Your task to perform on an android device: turn notification dots on Image 0: 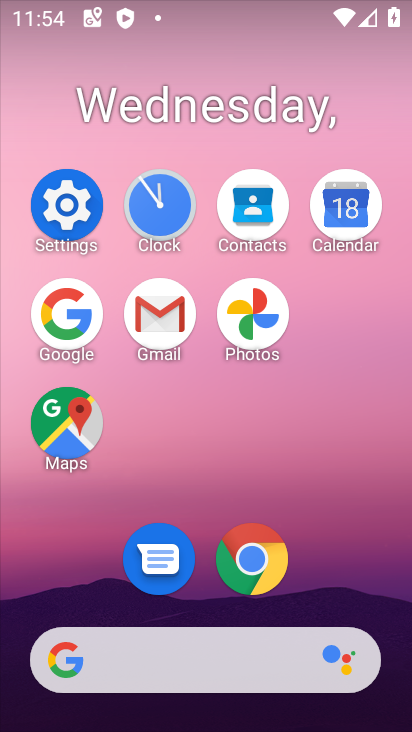
Step 0: click (91, 217)
Your task to perform on an android device: turn notification dots on Image 1: 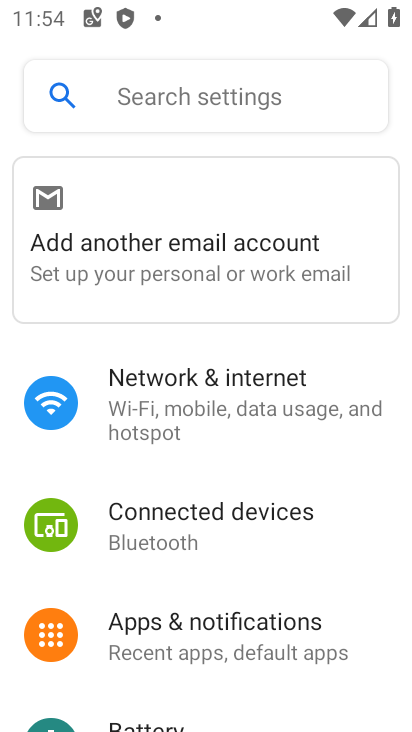
Step 1: click (246, 613)
Your task to perform on an android device: turn notification dots on Image 2: 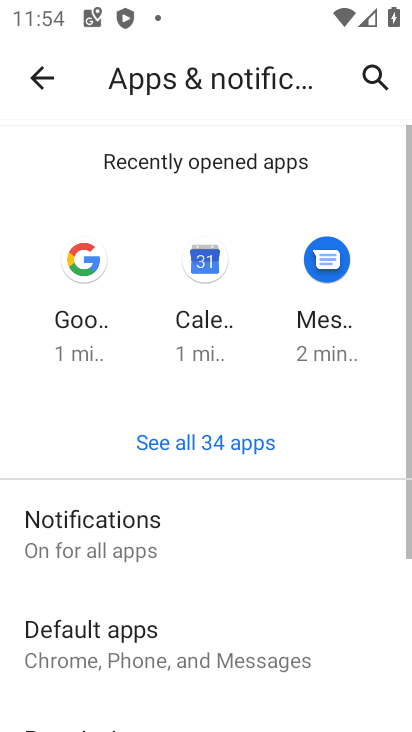
Step 2: click (203, 558)
Your task to perform on an android device: turn notification dots on Image 3: 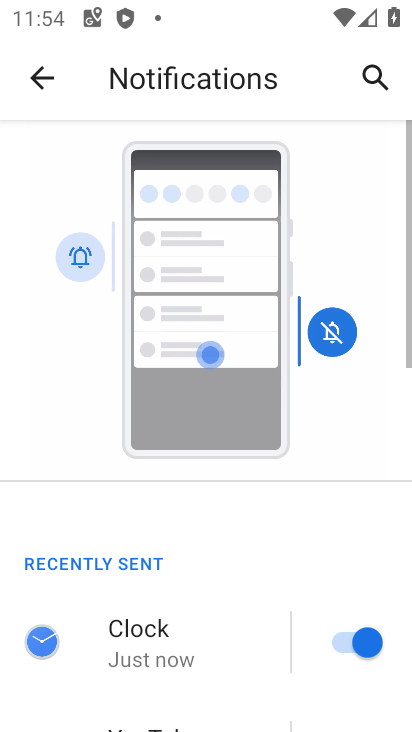
Step 3: drag from (203, 558) to (194, 220)
Your task to perform on an android device: turn notification dots on Image 4: 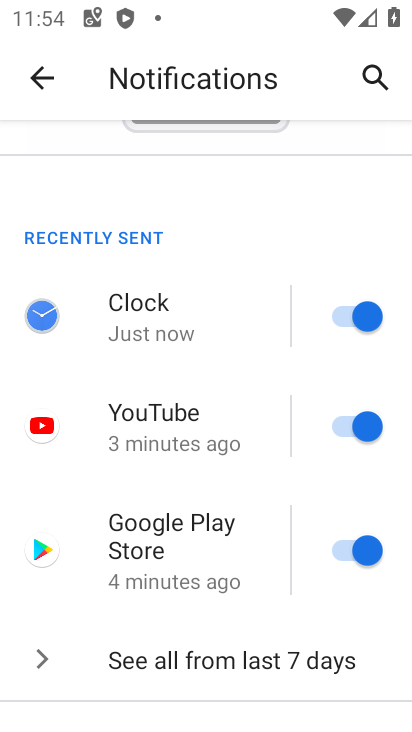
Step 4: drag from (237, 621) to (229, 252)
Your task to perform on an android device: turn notification dots on Image 5: 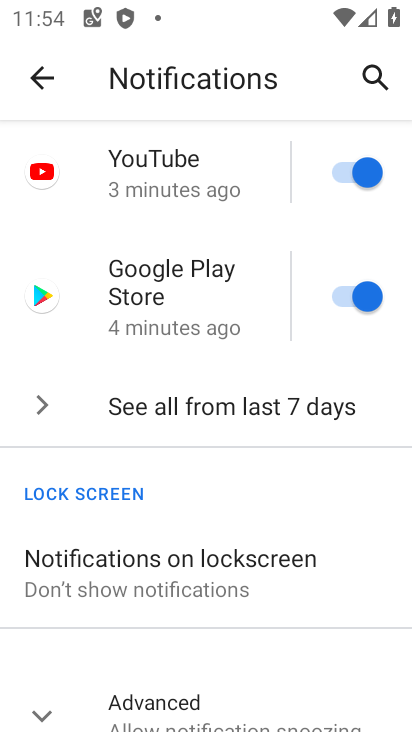
Step 5: drag from (319, 635) to (280, 309)
Your task to perform on an android device: turn notification dots on Image 6: 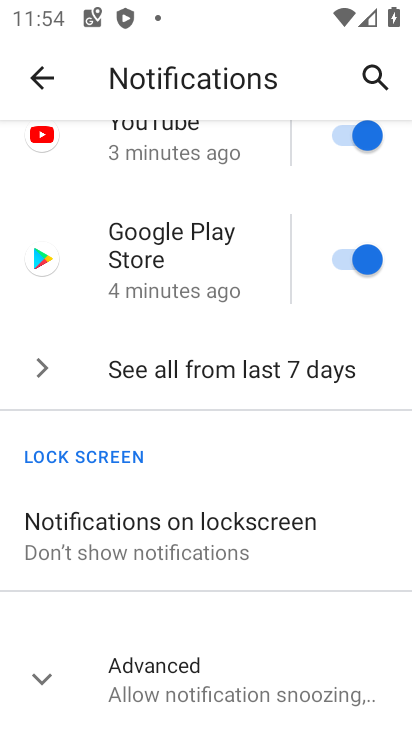
Step 6: click (249, 677)
Your task to perform on an android device: turn notification dots on Image 7: 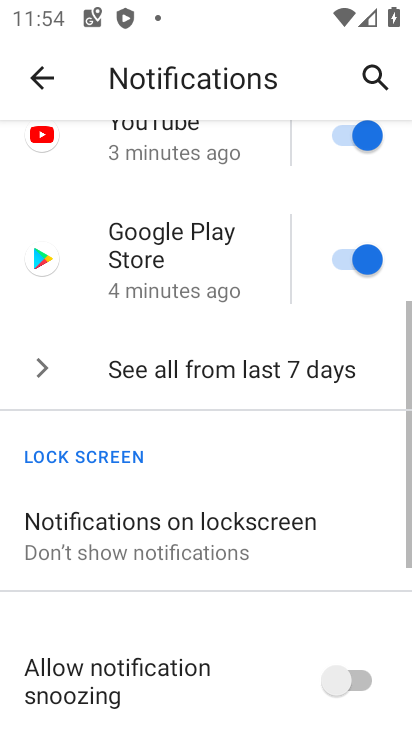
Step 7: drag from (241, 636) to (249, 354)
Your task to perform on an android device: turn notification dots on Image 8: 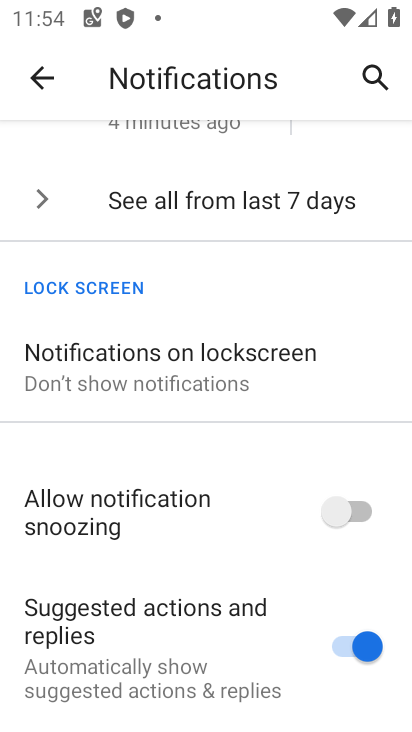
Step 8: drag from (301, 594) to (262, 303)
Your task to perform on an android device: turn notification dots on Image 9: 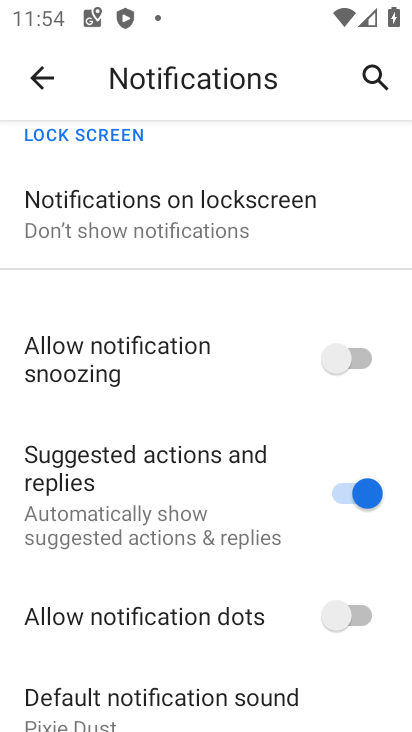
Step 9: click (332, 619)
Your task to perform on an android device: turn notification dots on Image 10: 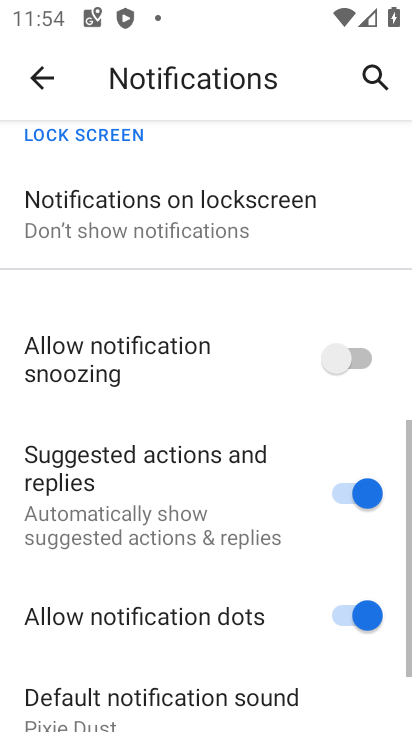
Step 10: task complete